Your task to perform on an android device: Show me popular videos on Youtube Image 0: 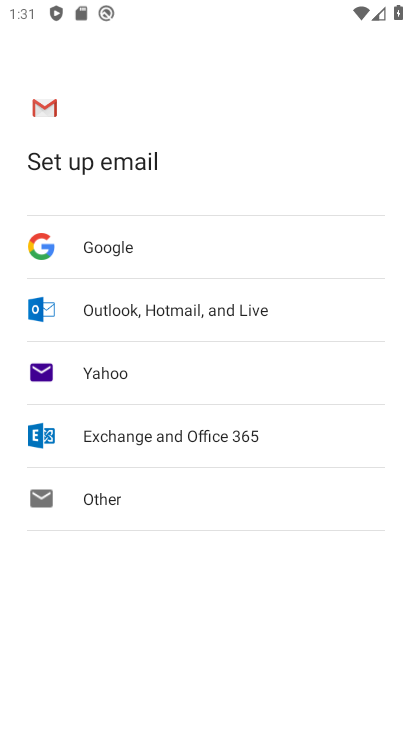
Step 0: press home button
Your task to perform on an android device: Show me popular videos on Youtube Image 1: 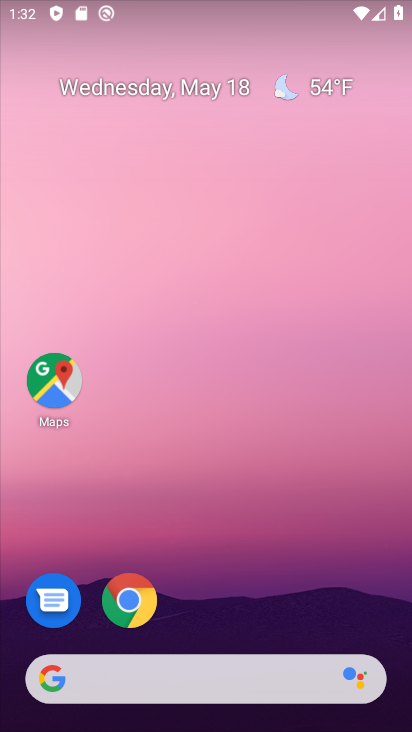
Step 1: drag from (200, 598) to (202, 341)
Your task to perform on an android device: Show me popular videos on Youtube Image 2: 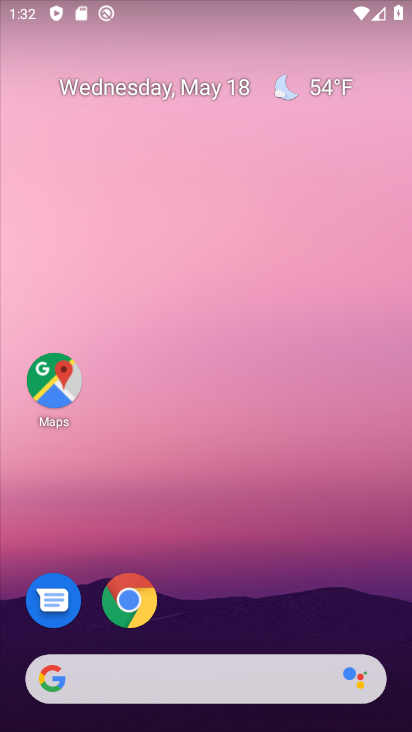
Step 2: drag from (181, 613) to (199, 19)
Your task to perform on an android device: Show me popular videos on Youtube Image 3: 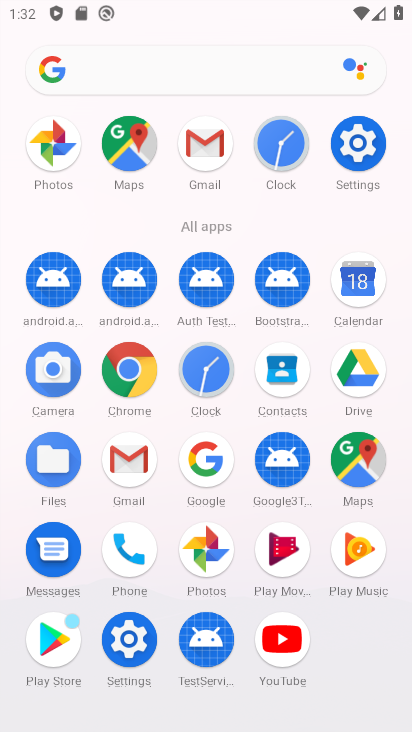
Step 3: click (284, 639)
Your task to perform on an android device: Show me popular videos on Youtube Image 4: 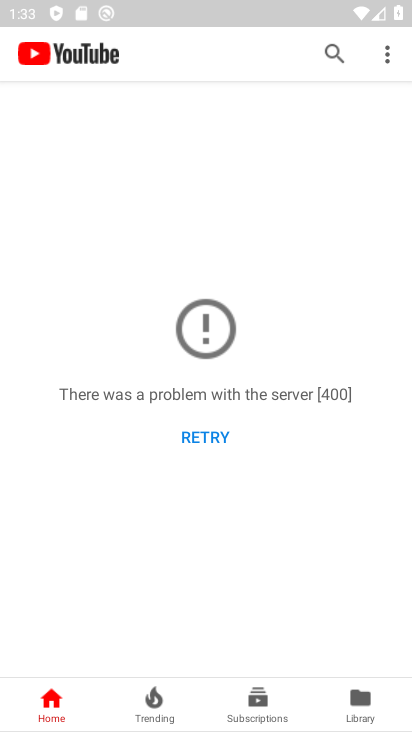
Step 4: task complete